Your task to perform on an android device: turn off priority inbox in the gmail app Image 0: 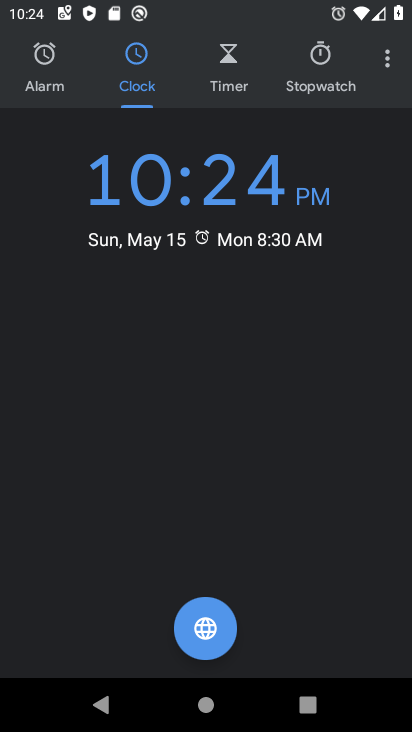
Step 0: press back button
Your task to perform on an android device: turn off priority inbox in the gmail app Image 1: 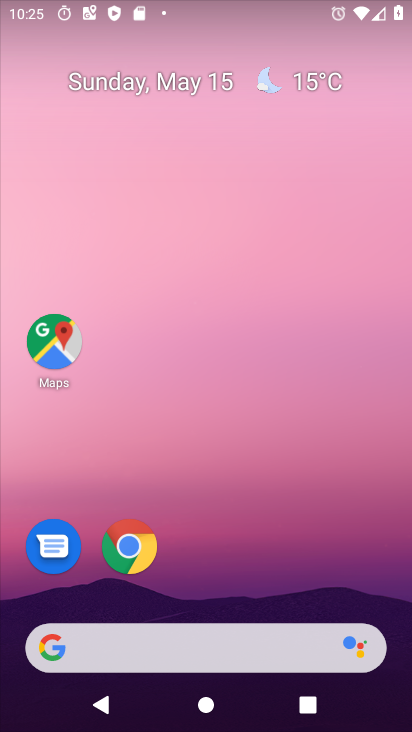
Step 1: drag from (347, 532) to (105, 97)
Your task to perform on an android device: turn off priority inbox in the gmail app Image 2: 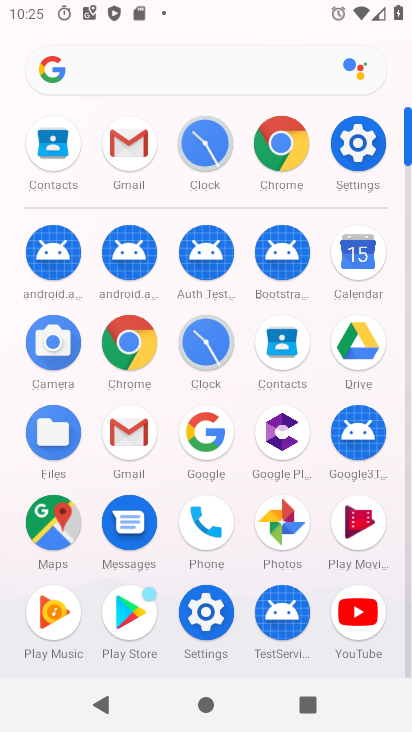
Step 2: click (140, 442)
Your task to perform on an android device: turn off priority inbox in the gmail app Image 3: 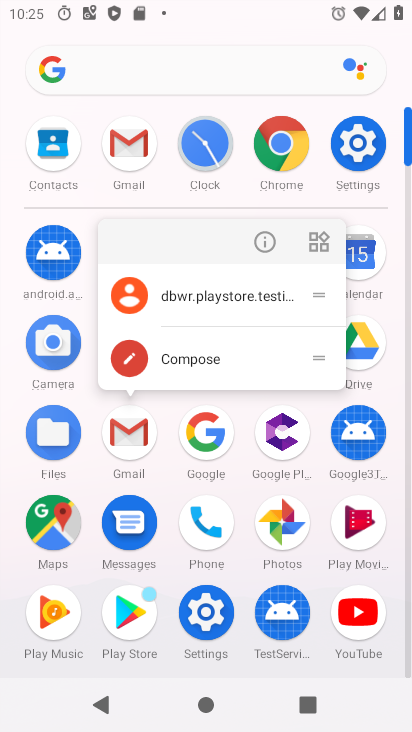
Step 3: click (130, 436)
Your task to perform on an android device: turn off priority inbox in the gmail app Image 4: 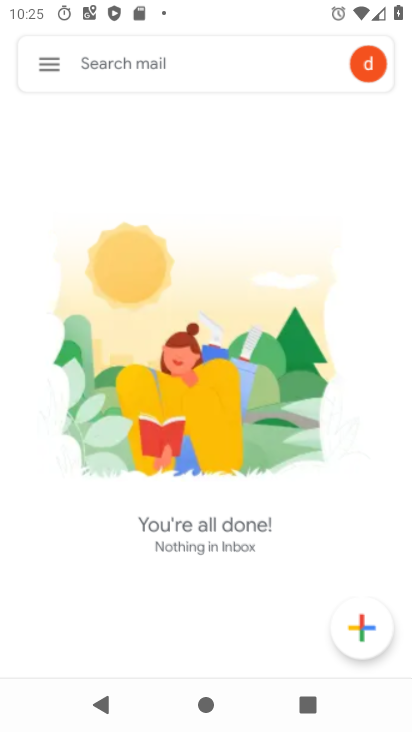
Step 4: click (134, 436)
Your task to perform on an android device: turn off priority inbox in the gmail app Image 5: 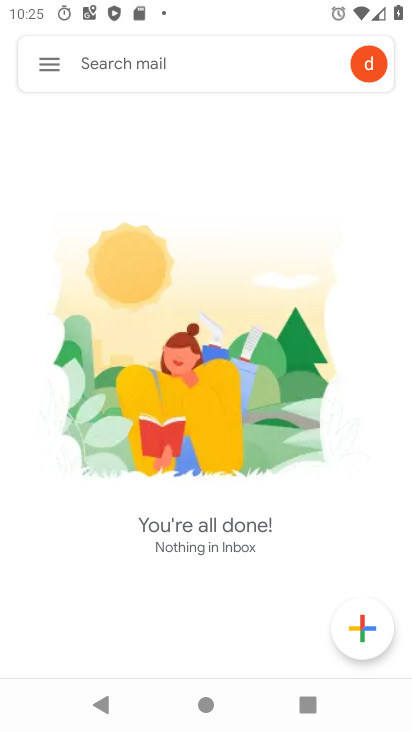
Step 5: click (50, 62)
Your task to perform on an android device: turn off priority inbox in the gmail app Image 6: 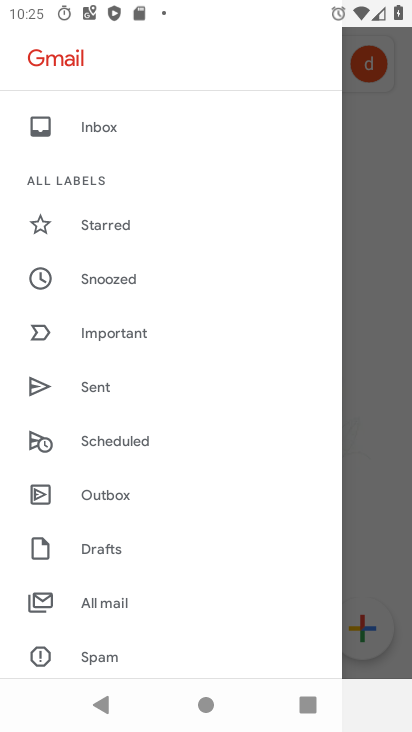
Step 6: drag from (97, 612) to (124, 112)
Your task to perform on an android device: turn off priority inbox in the gmail app Image 7: 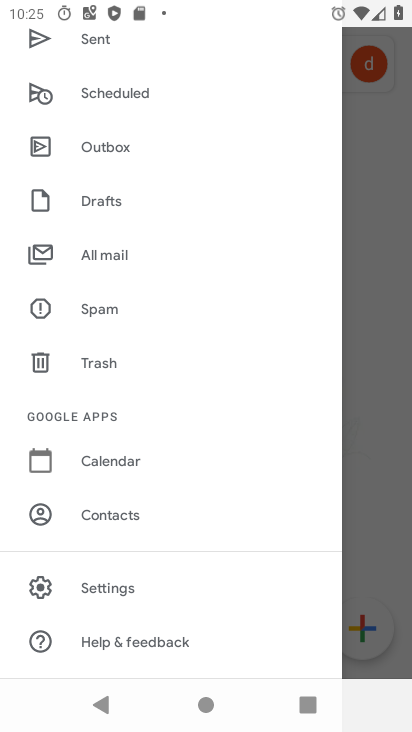
Step 7: click (95, 588)
Your task to perform on an android device: turn off priority inbox in the gmail app Image 8: 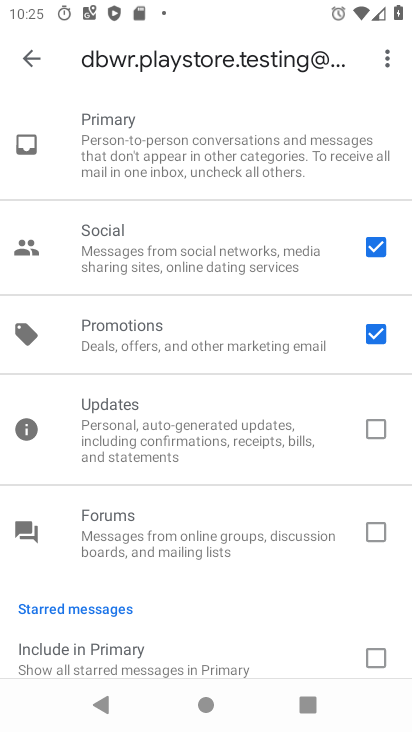
Step 8: click (24, 55)
Your task to perform on an android device: turn off priority inbox in the gmail app Image 9: 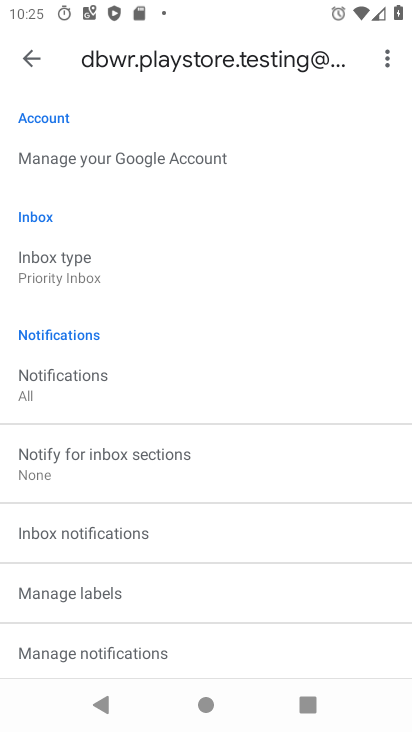
Step 9: click (65, 274)
Your task to perform on an android device: turn off priority inbox in the gmail app Image 10: 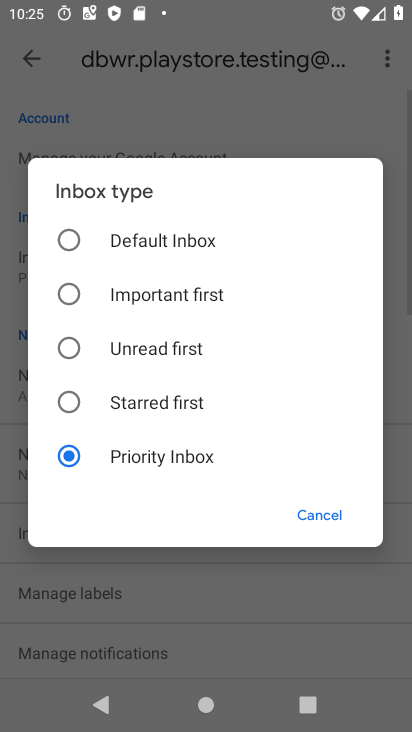
Step 10: click (75, 403)
Your task to perform on an android device: turn off priority inbox in the gmail app Image 11: 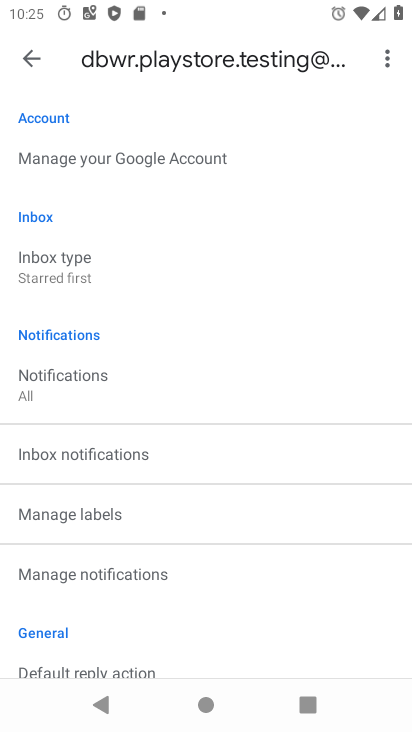
Step 11: task complete